Your task to perform on an android device: Go to internet settings Image 0: 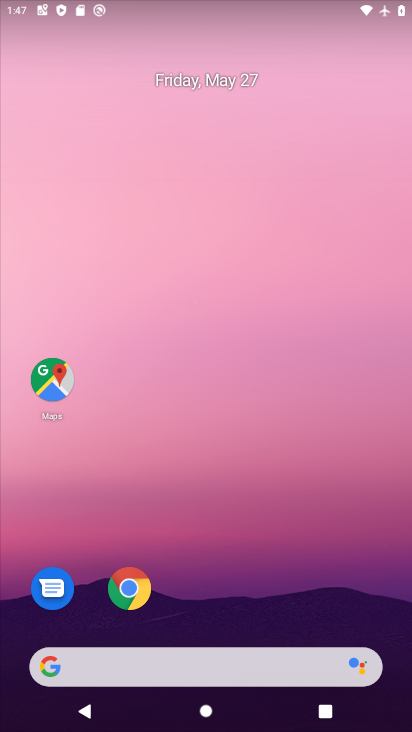
Step 0: drag from (348, 619) to (341, 101)
Your task to perform on an android device: Go to internet settings Image 1: 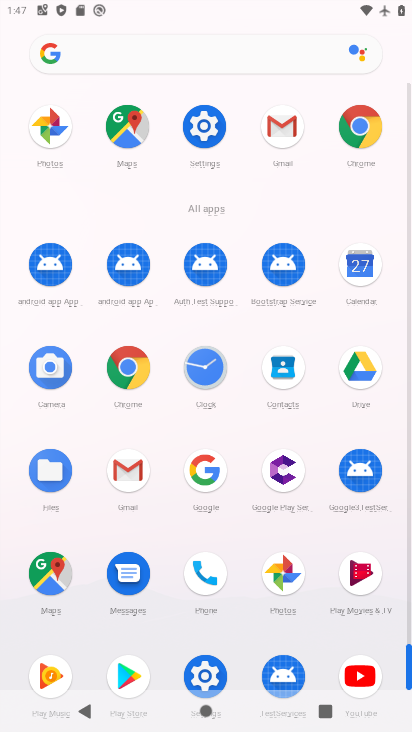
Step 1: click (204, 676)
Your task to perform on an android device: Go to internet settings Image 2: 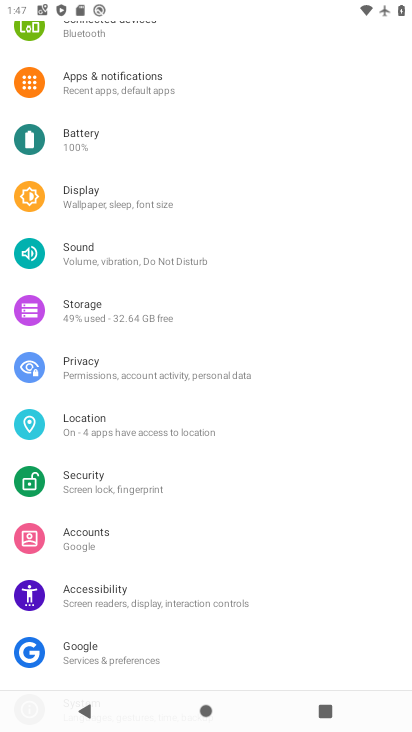
Step 2: drag from (298, 144) to (273, 400)
Your task to perform on an android device: Go to internet settings Image 3: 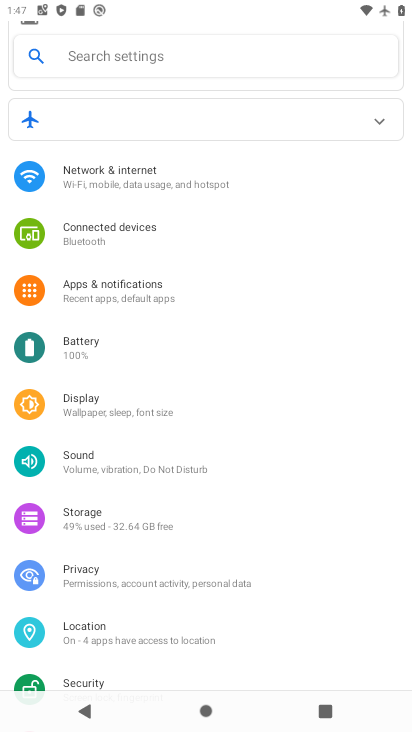
Step 3: click (100, 161)
Your task to perform on an android device: Go to internet settings Image 4: 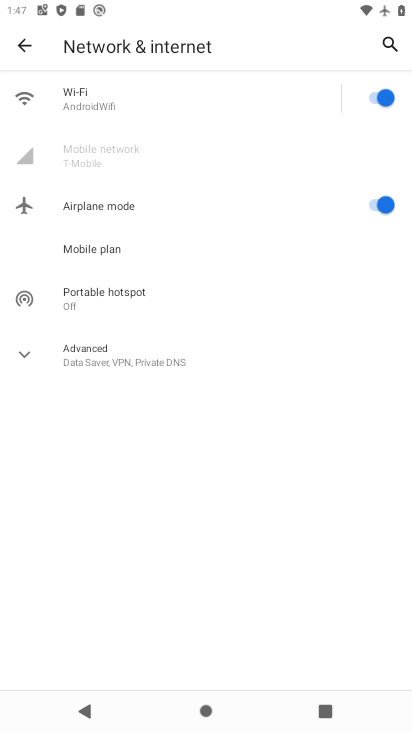
Step 4: click (29, 360)
Your task to perform on an android device: Go to internet settings Image 5: 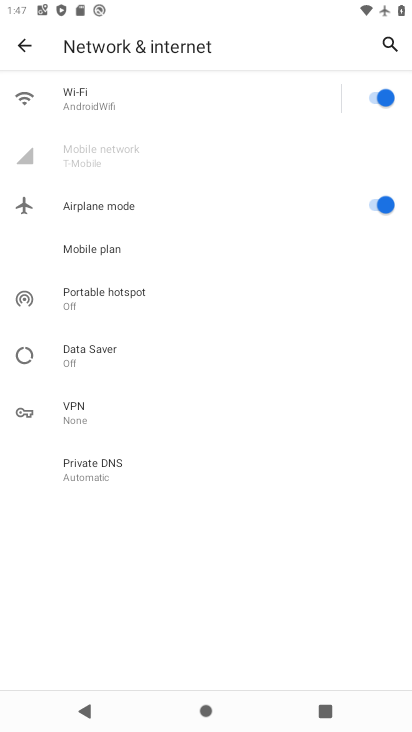
Step 5: task complete